Your task to perform on an android device: turn on improve location accuracy Image 0: 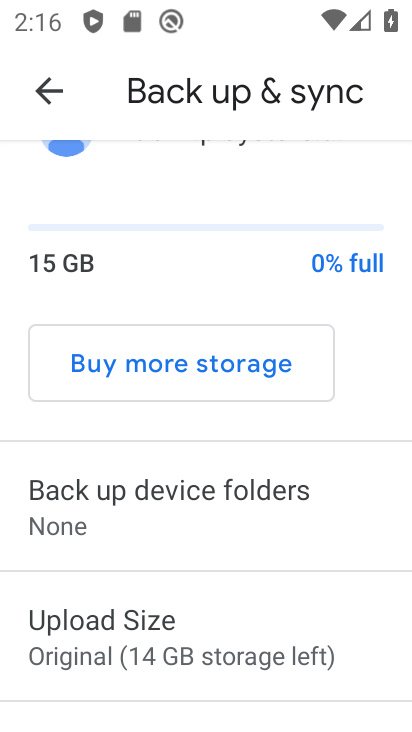
Step 0: press home button
Your task to perform on an android device: turn on improve location accuracy Image 1: 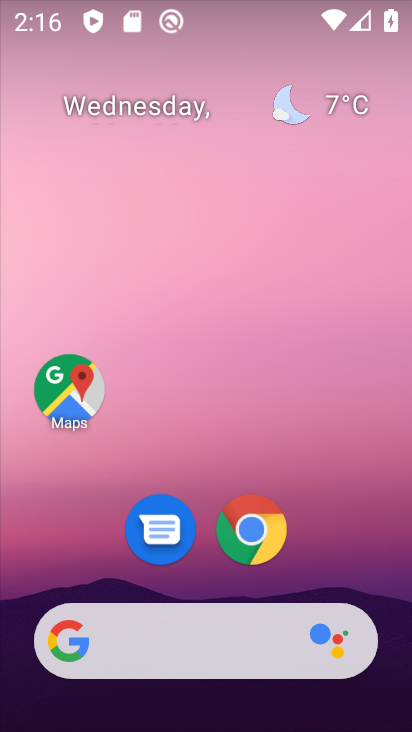
Step 1: drag from (328, 525) to (296, 65)
Your task to perform on an android device: turn on improve location accuracy Image 2: 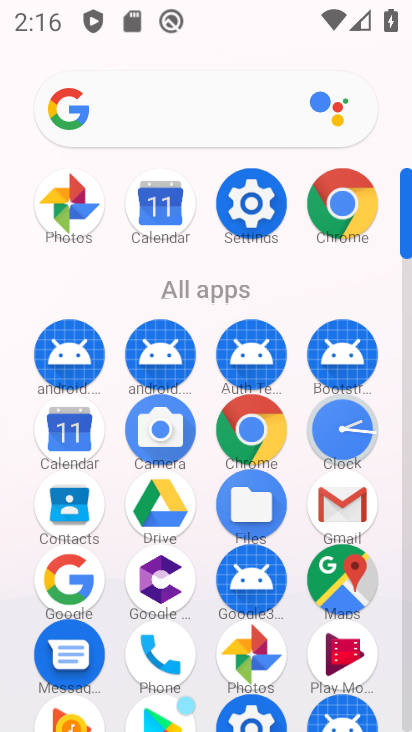
Step 2: click (267, 246)
Your task to perform on an android device: turn on improve location accuracy Image 3: 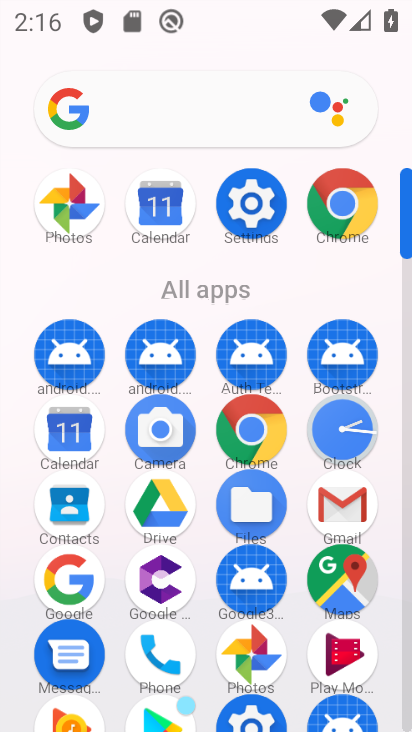
Step 3: click (261, 215)
Your task to perform on an android device: turn on improve location accuracy Image 4: 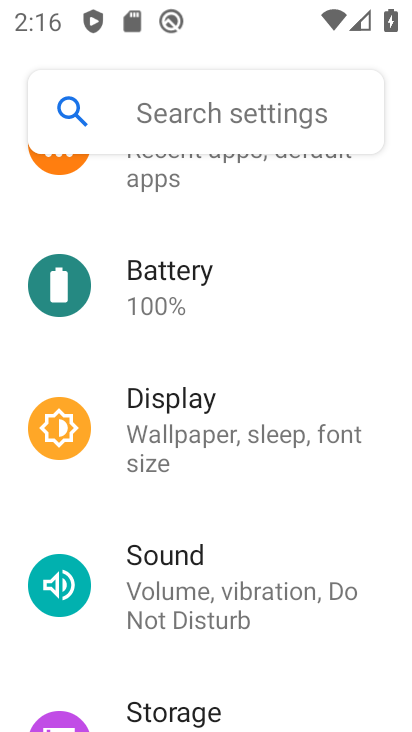
Step 4: drag from (196, 253) to (251, 642)
Your task to perform on an android device: turn on improve location accuracy Image 5: 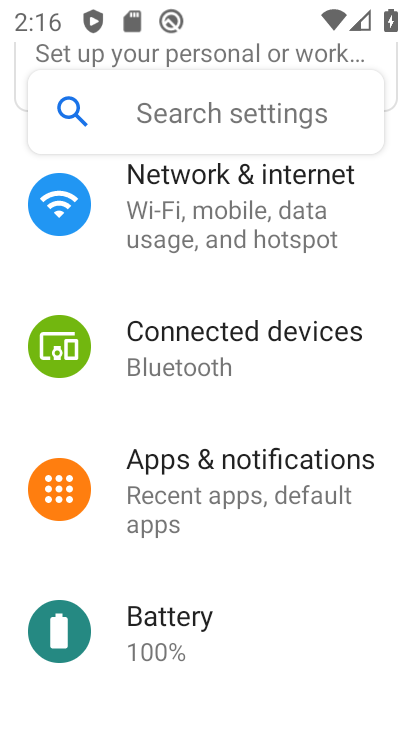
Step 5: drag from (235, 337) to (277, 604)
Your task to perform on an android device: turn on improve location accuracy Image 6: 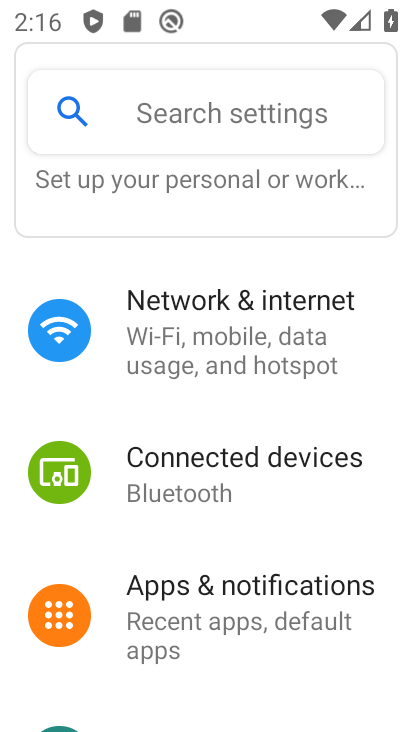
Step 6: drag from (247, 684) to (187, 249)
Your task to perform on an android device: turn on improve location accuracy Image 7: 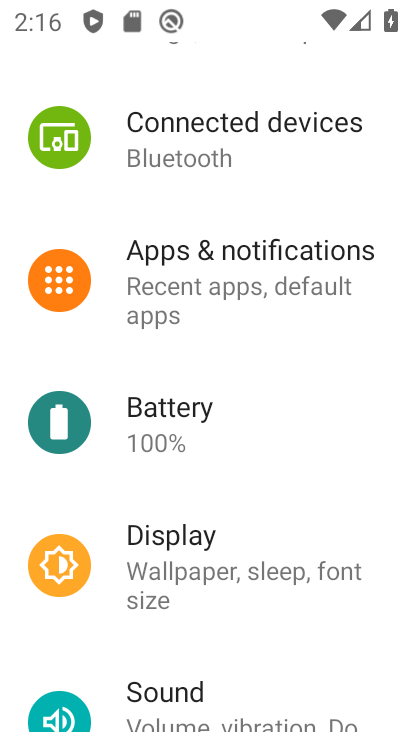
Step 7: drag from (257, 618) to (223, 251)
Your task to perform on an android device: turn on improve location accuracy Image 8: 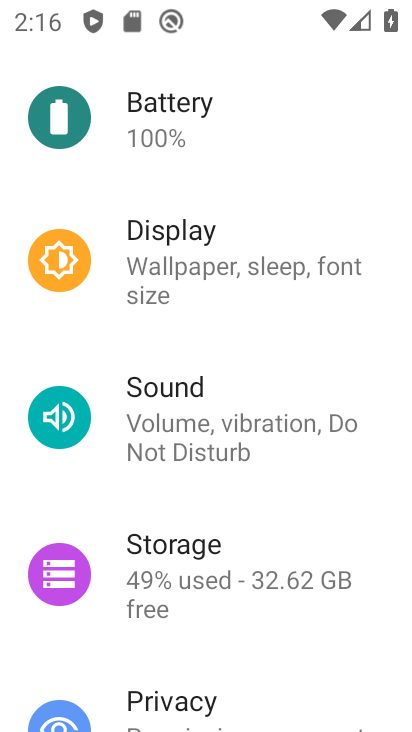
Step 8: drag from (261, 589) to (240, 309)
Your task to perform on an android device: turn on improve location accuracy Image 9: 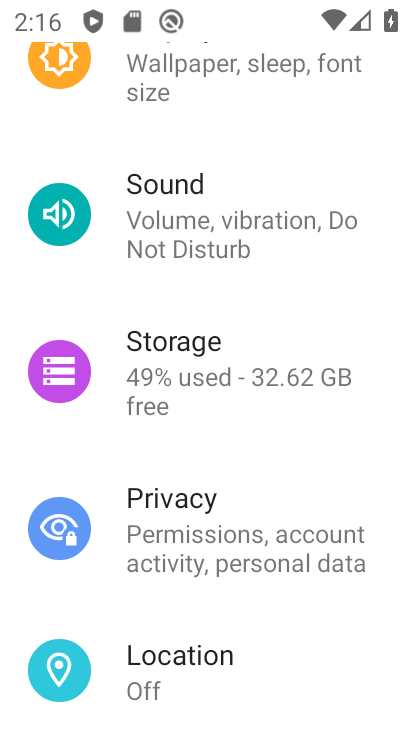
Step 9: click (168, 660)
Your task to perform on an android device: turn on improve location accuracy Image 10: 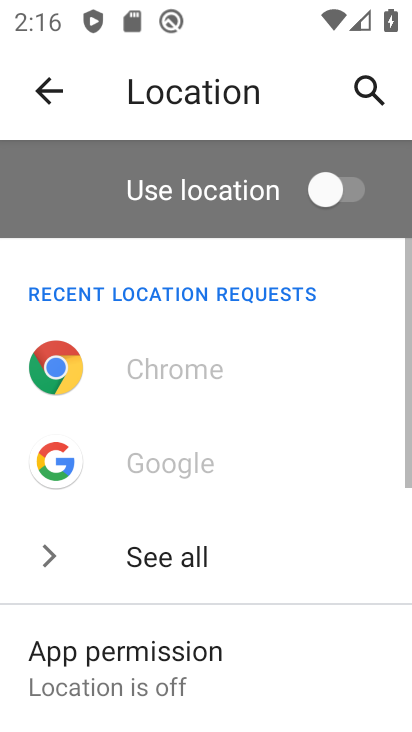
Step 10: drag from (168, 661) to (132, 332)
Your task to perform on an android device: turn on improve location accuracy Image 11: 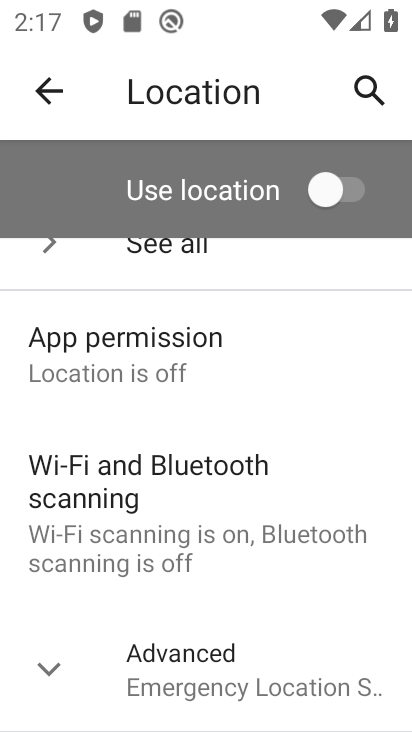
Step 11: drag from (208, 640) to (232, 337)
Your task to perform on an android device: turn on improve location accuracy Image 12: 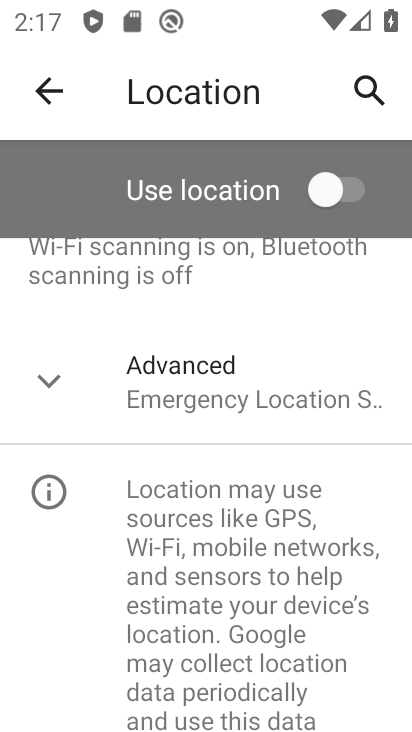
Step 12: drag from (235, 340) to (300, 665)
Your task to perform on an android device: turn on improve location accuracy Image 13: 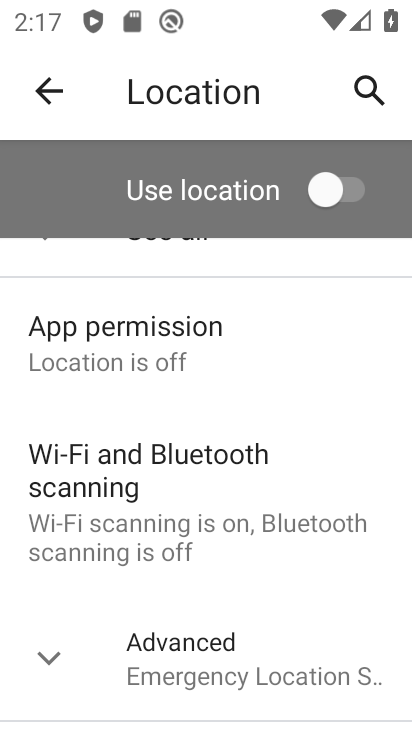
Step 13: drag from (235, 327) to (265, 618)
Your task to perform on an android device: turn on improve location accuracy Image 14: 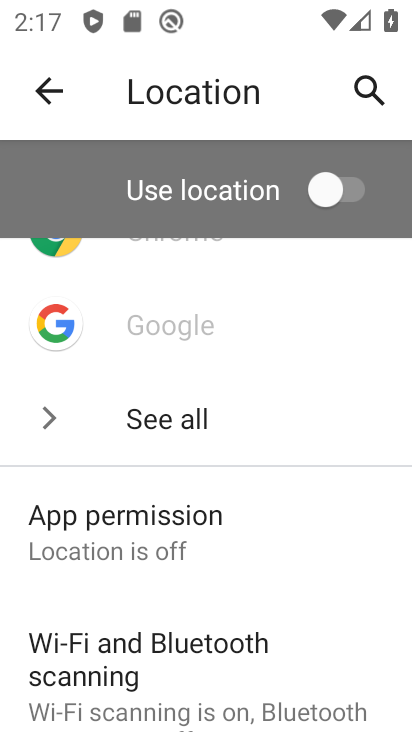
Step 14: drag from (258, 653) to (232, 307)
Your task to perform on an android device: turn on improve location accuracy Image 15: 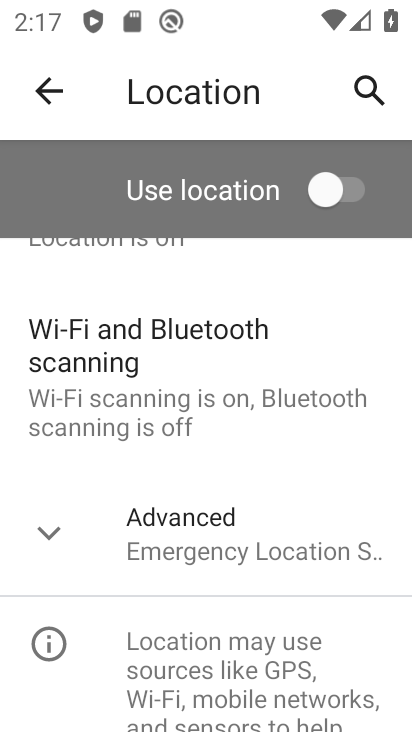
Step 15: click (182, 502)
Your task to perform on an android device: turn on improve location accuracy Image 16: 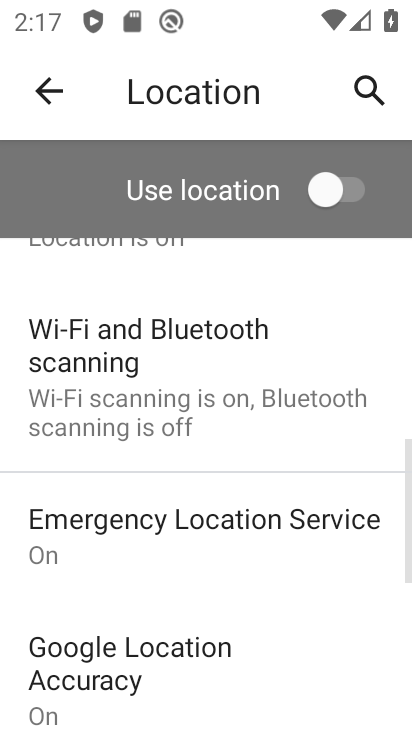
Step 16: drag from (223, 602) to (213, 386)
Your task to perform on an android device: turn on improve location accuracy Image 17: 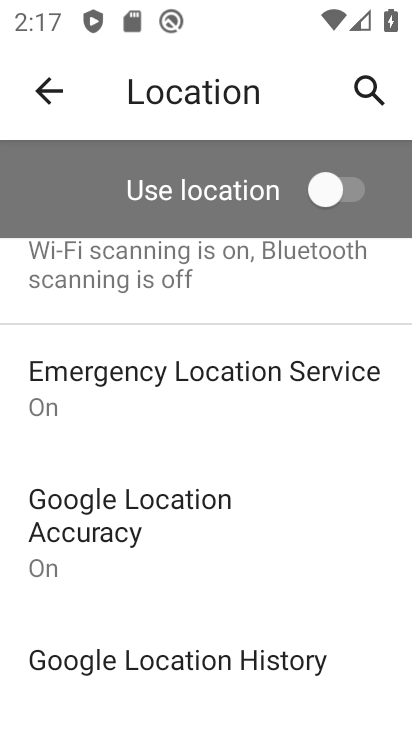
Step 17: click (110, 540)
Your task to perform on an android device: turn on improve location accuracy Image 18: 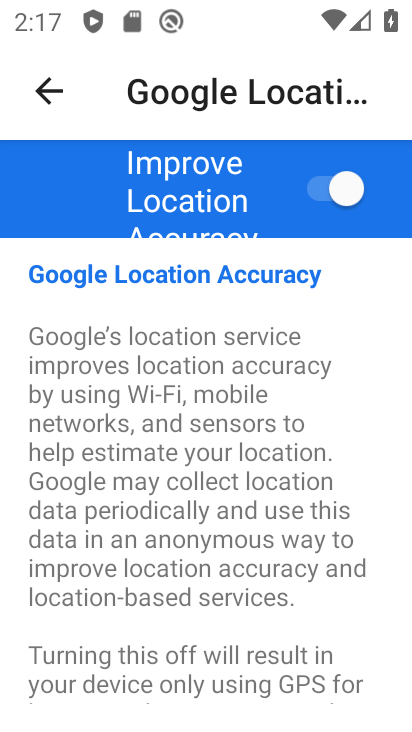
Step 18: task complete